Your task to perform on an android device: turn on sleep mode Image 0: 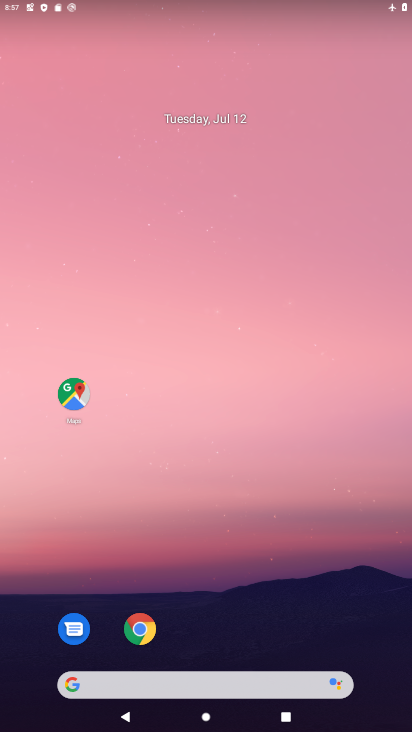
Step 0: drag from (227, 635) to (245, 236)
Your task to perform on an android device: turn on sleep mode Image 1: 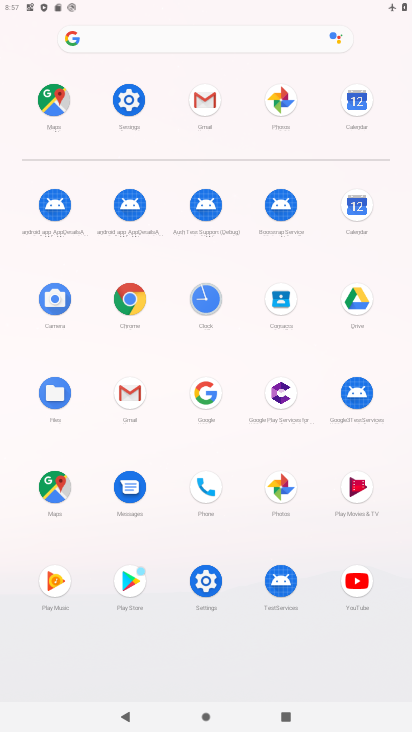
Step 1: click (133, 90)
Your task to perform on an android device: turn on sleep mode Image 2: 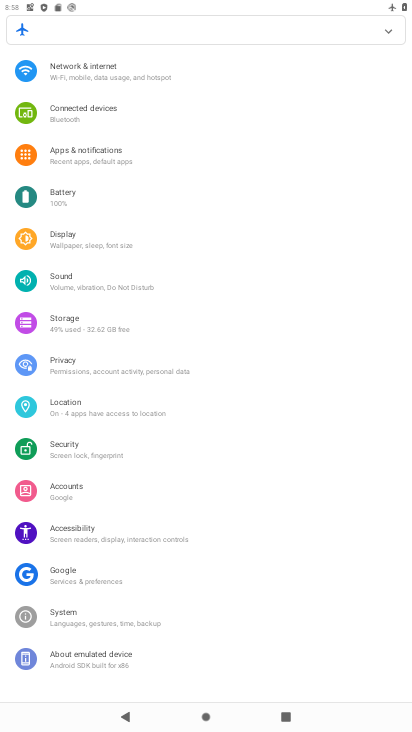
Step 2: task complete